Your task to perform on an android device: turn on sleep mode Image 0: 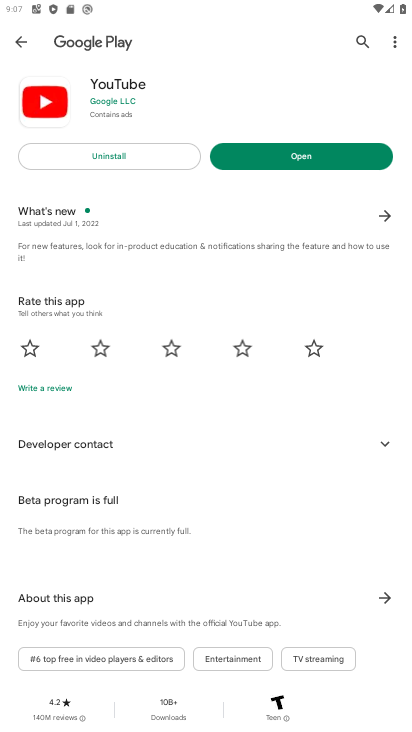
Step 0: drag from (236, 412) to (273, 32)
Your task to perform on an android device: turn on sleep mode Image 1: 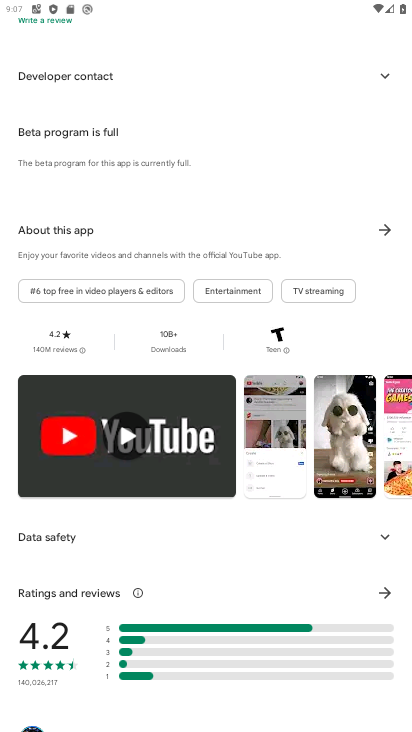
Step 1: press home button
Your task to perform on an android device: turn on sleep mode Image 2: 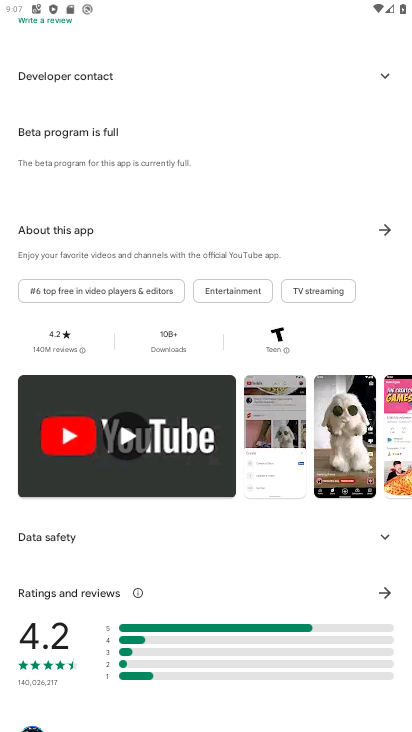
Step 2: drag from (273, 32) to (377, 376)
Your task to perform on an android device: turn on sleep mode Image 3: 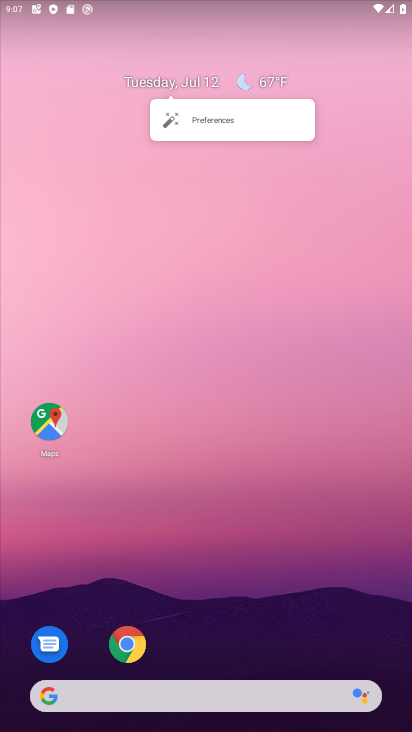
Step 3: drag from (206, 639) to (264, 61)
Your task to perform on an android device: turn on sleep mode Image 4: 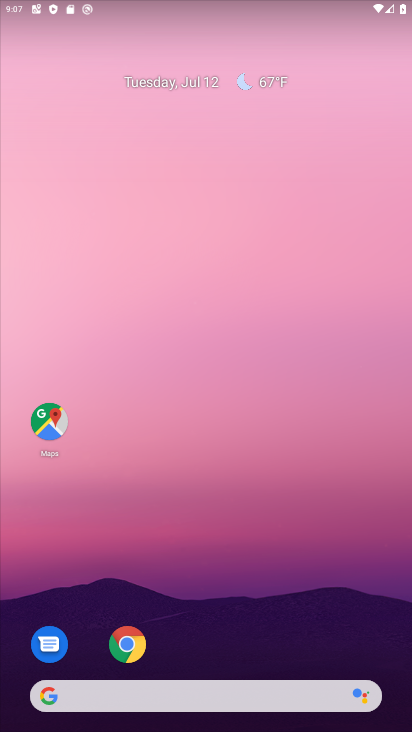
Step 4: drag from (215, 650) to (178, 9)
Your task to perform on an android device: turn on sleep mode Image 5: 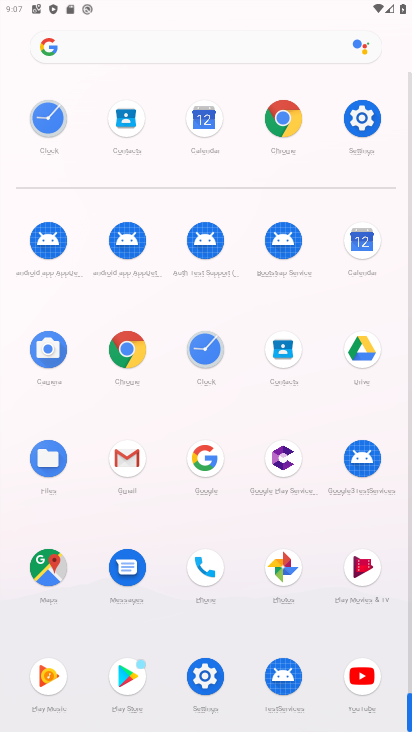
Step 5: click (346, 125)
Your task to perform on an android device: turn on sleep mode Image 6: 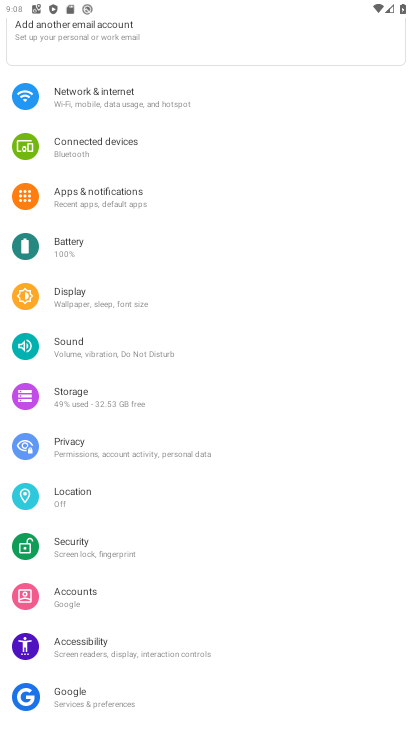
Step 6: click (100, 304)
Your task to perform on an android device: turn on sleep mode Image 7: 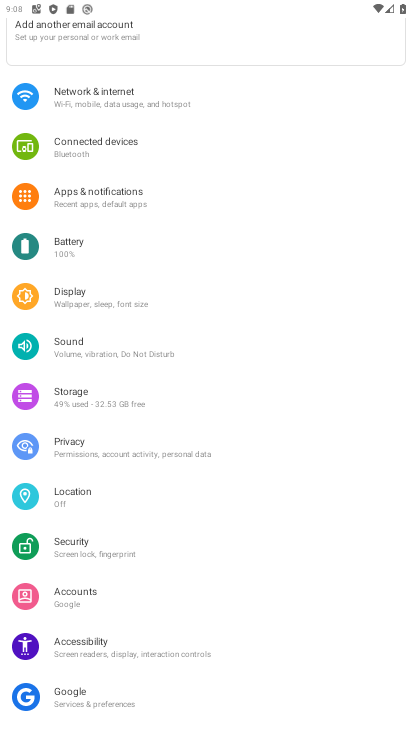
Step 7: click (99, 305)
Your task to perform on an android device: turn on sleep mode Image 8: 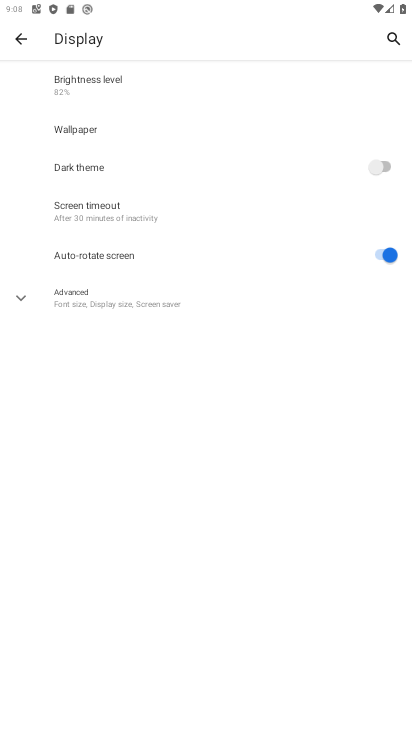
Step 8: click (103, 219)
Your task to perform on an android device: turn on sleep mode Image 9: 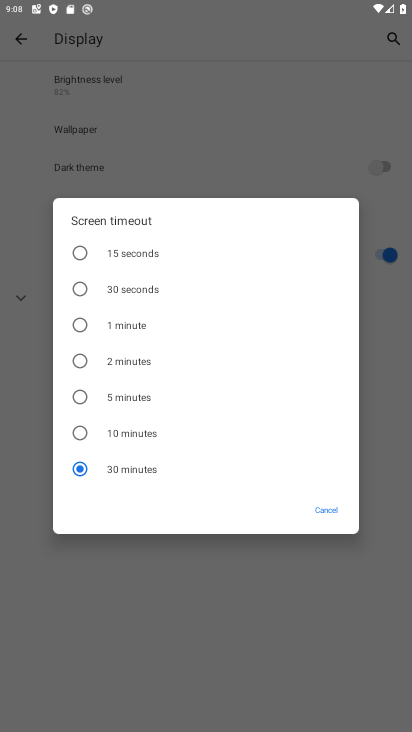
Step 9: task complete